Your task to perform on an android device: change the clock display to analog Image 0: 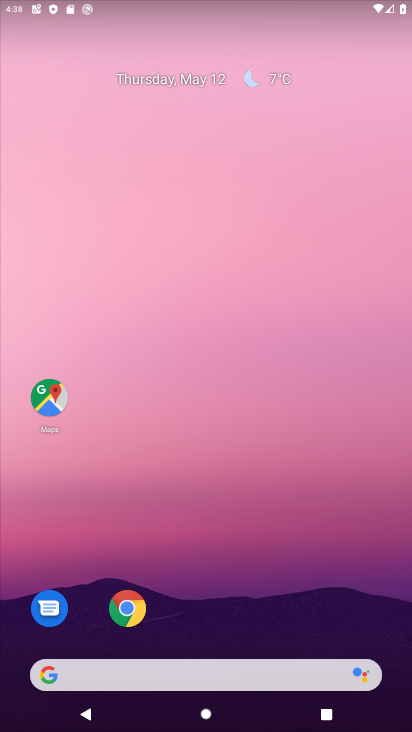
Step 0: drag from (218, 622) to (274, 70)
Your task to perform on an android device: change the clock display to analog Image 1: 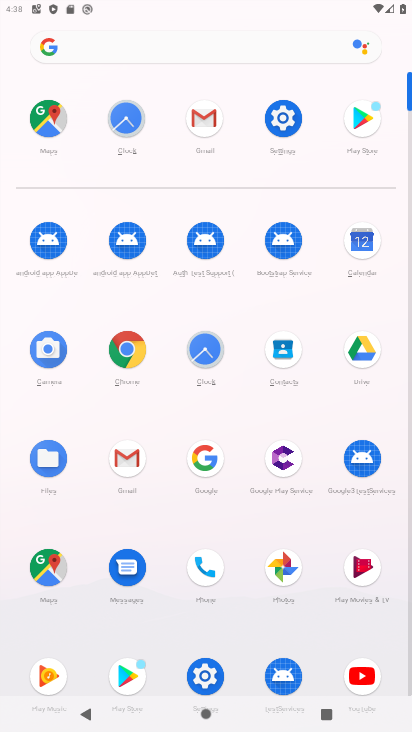
Step 1: click (203, 368)
Your task to perform on an android device: change the clock display to analog Image 2: 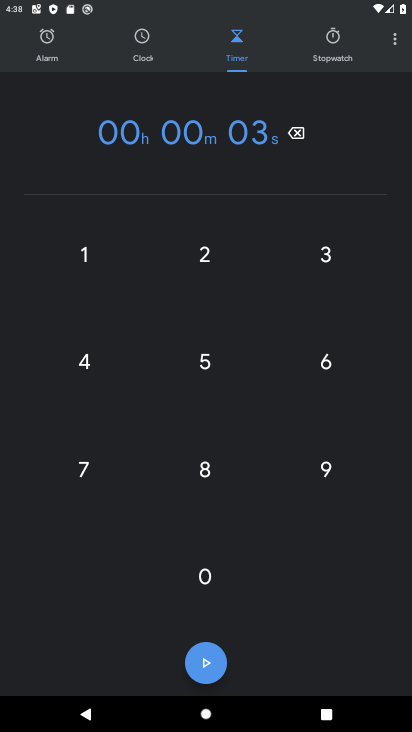
Step 2: click (388, 49)
Your task to perform on an android device: change the clock display to analog Image 3: 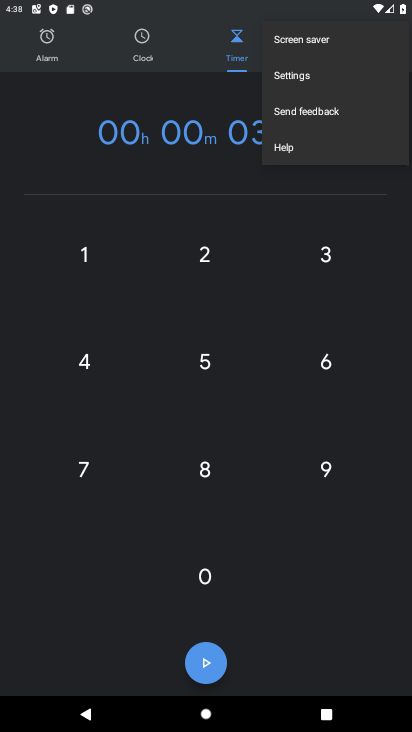
Step 3: click (319, 71)
Your task to perform on an android device: change the clock display to analog Image 4: 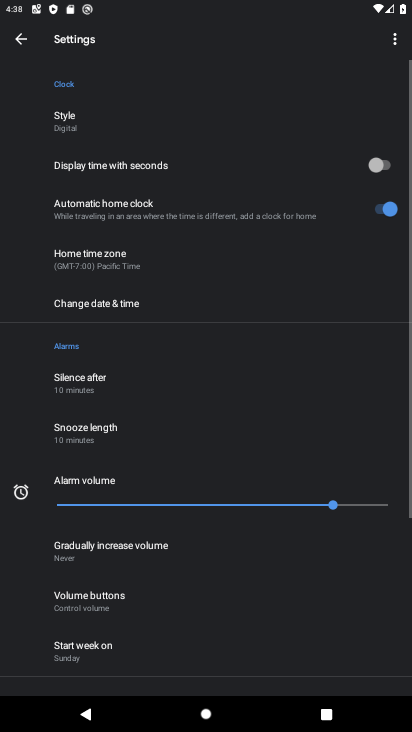
Step 4: click (130, 124)
Your task to perform on an android device: change the clock display to analog Image 5: 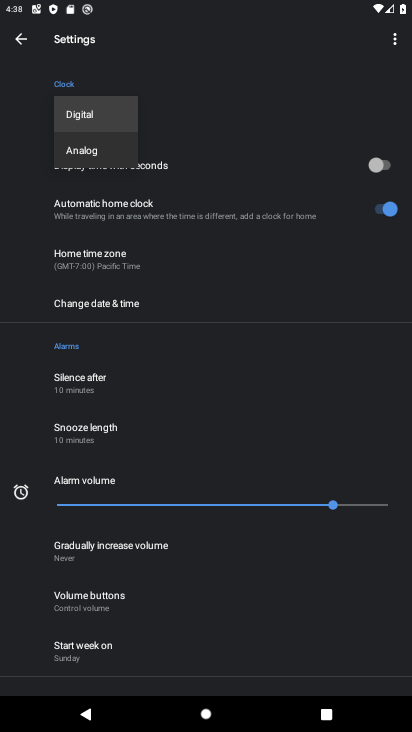
Step 5: click (109, 145)
Your task to perform on an android device: change the clock display to analog Image 6: 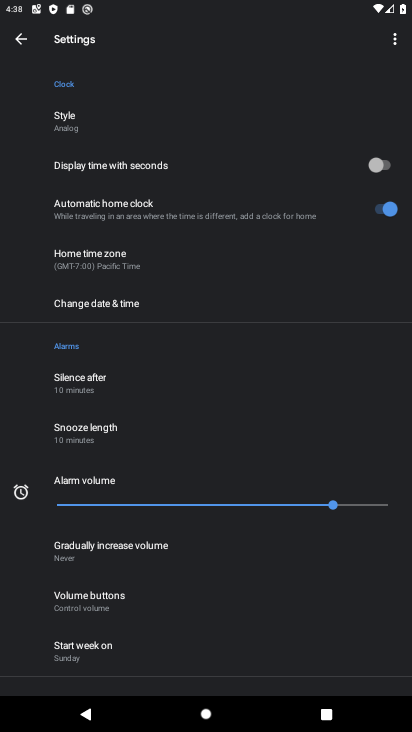
Step 6: task complete